Your task to perform on an android device: Open the phone app and click the voicemail tab. Image 0: 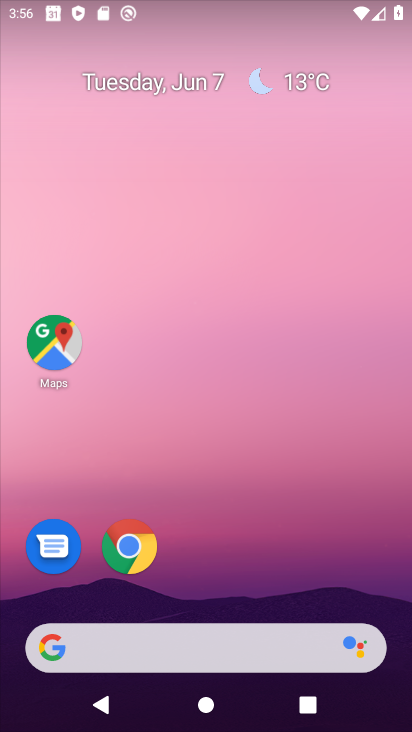
Step 0: drag from (220, 594) to (234, 33)
Your task to perform on an android device: Open the phone app and click the voicemail tab. Image 1: 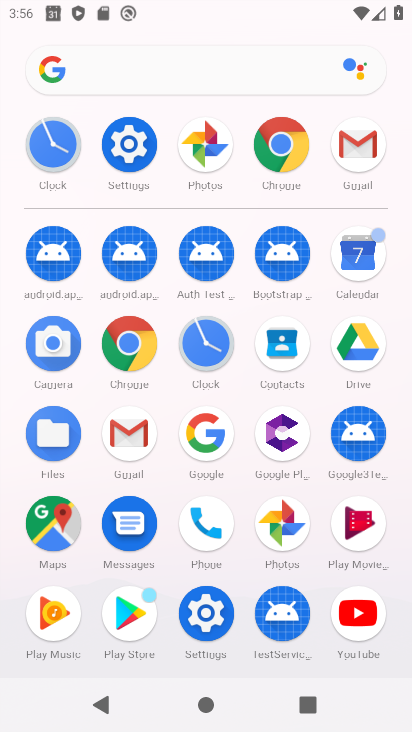
Step 1: click (201, 515)
Your task to perform on an android device: Open the phone app and click the voicemail tab. Image 2: 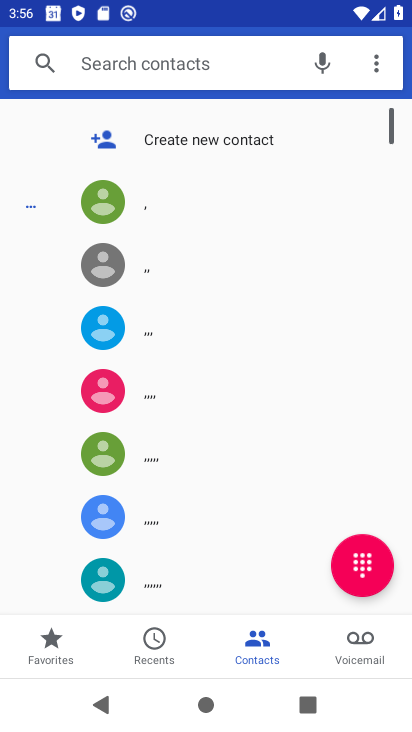
Step 2: click (362, 641)
Your task to perform on an android device: Open the phone app and click the voicemail tab. Image 3: 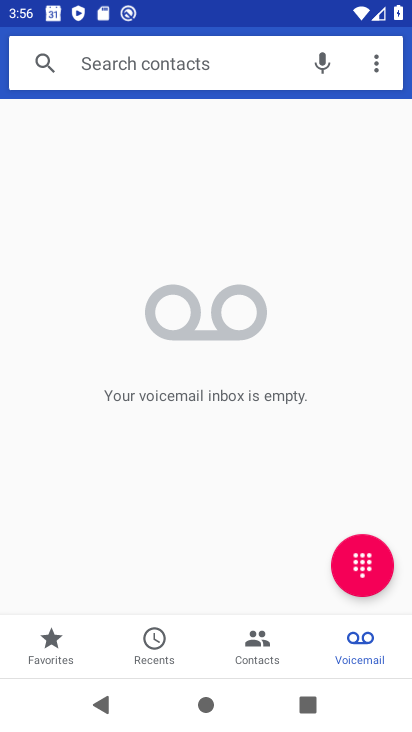
Step 3: task complete